Your task to perform on an android device: Do I have any events today? Image 0: 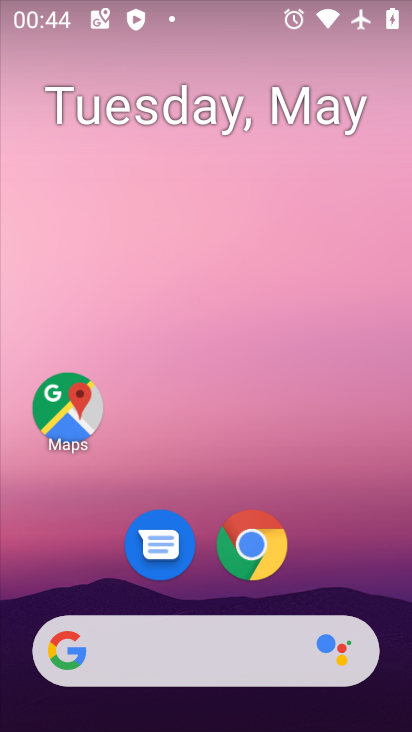
Step 0: drag from (351, 548) to (338, 14)
Your task to perform on an android device: Do I have any events today? Image 1: 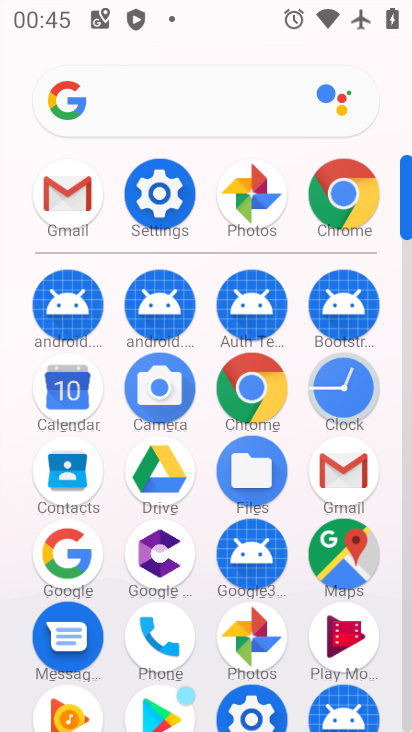
Step 1: click (64, 408)
Your task to perform on an android device: Do I have any events today? Image 2: 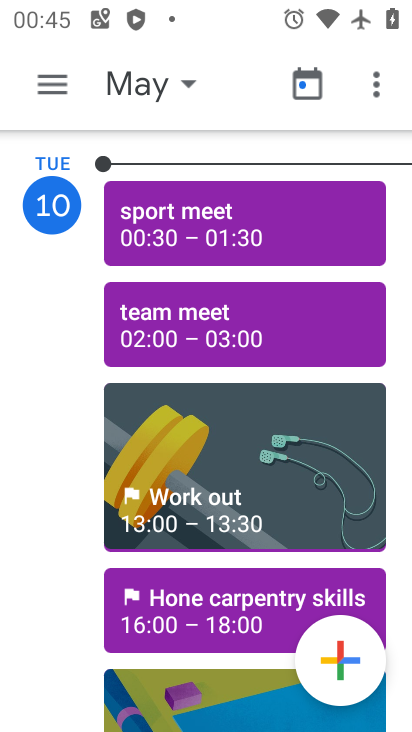
Step 2: click (162, 100)
Your task to perform on an android device: Do I have any events today? Image 3: 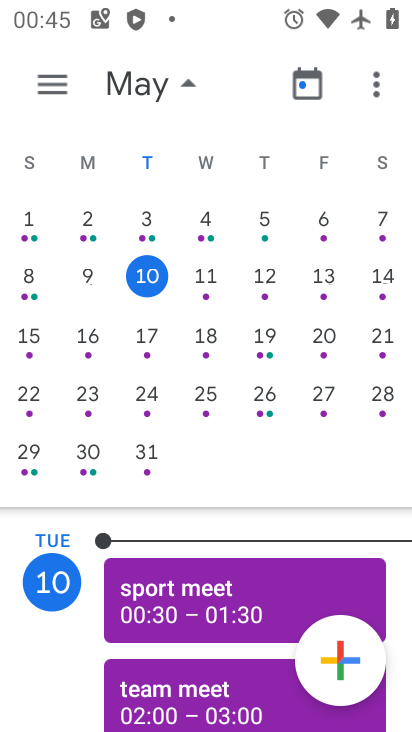
Step 3: click (136, 278)
Your task to perform on an android device: Do I have any events today? Image 4: 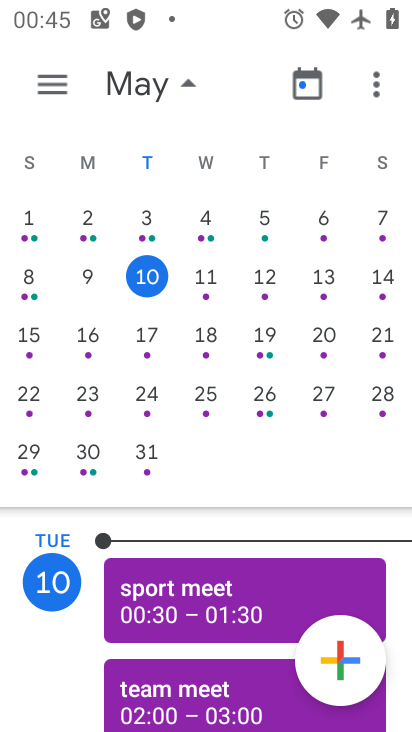
Step 4: task complete